Your task to perform on an android device: show emergency info Image 0: 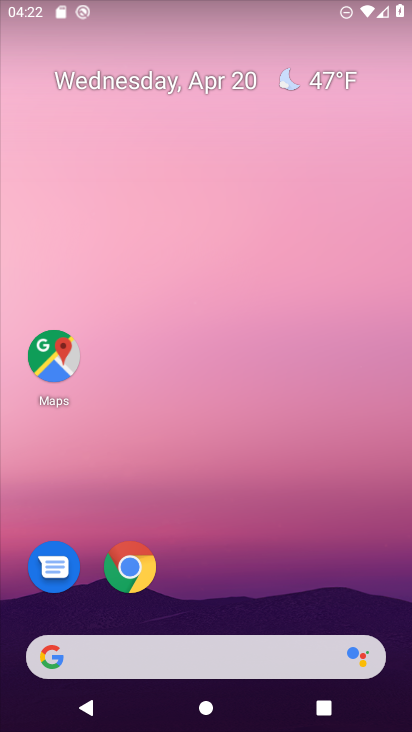
Step 0: drag from (266, 13) to (218, 531)
Your task to perform on an android device: show emergency info Image 1: 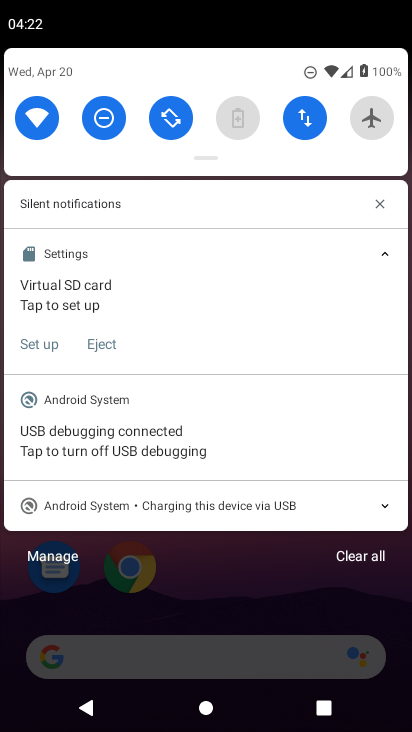
Step 1: drag from (210, 66) to (223, 574)
Your task to perform on an android device: show emergency info Image 2: 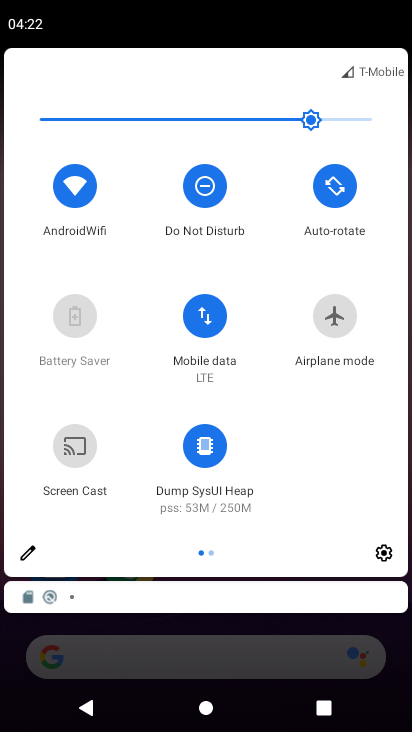
Step 2: click (383, 562)
Your task to perform on an android device: show emergency info Image 3: 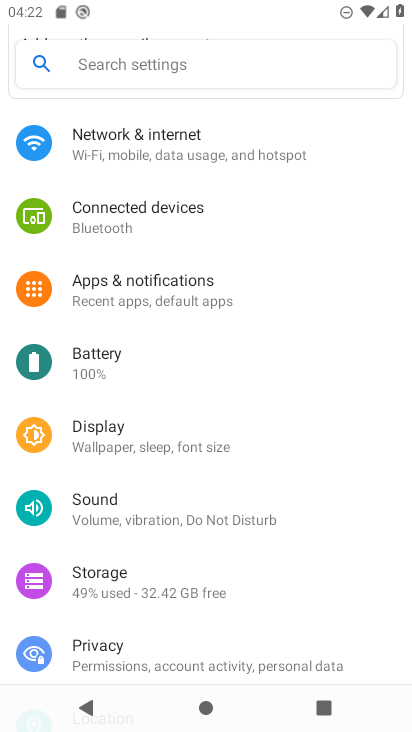
Step 3: drag from (69, 653) to (191, 212)
Your task to perform on an android device: show emergency info Image 4: 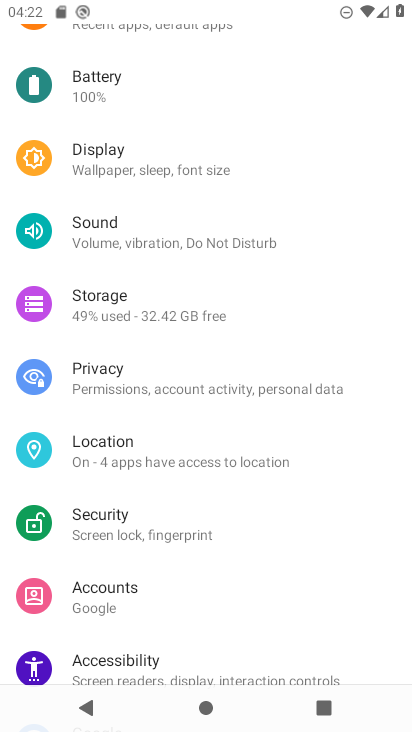
Step 4: drag from (130, 629) to (210, 159)
Your task to perform on an android device: show emergency info Image 5: 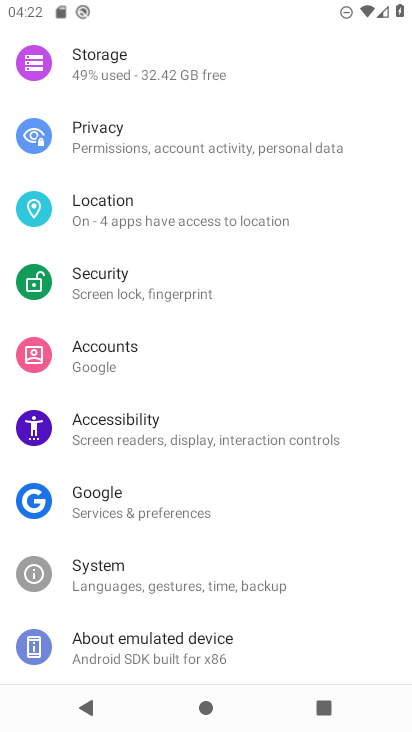
Step 5: click (186, 648)
Your task to perform on an android device: show emergency info Image 6: 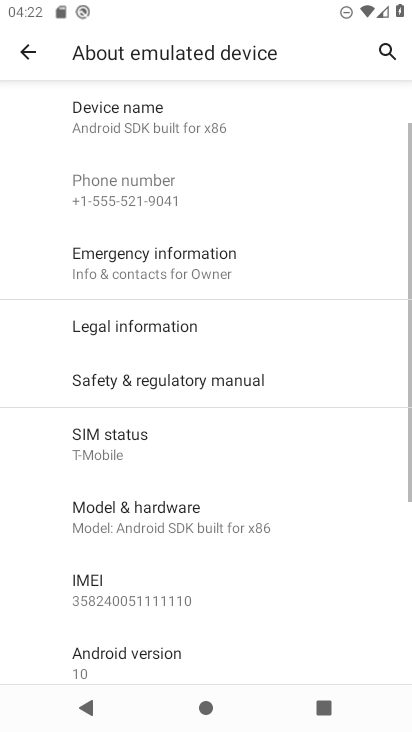
Step 6: click (257, 281)
Your task to perform on an android device: show emergency info Image 7: 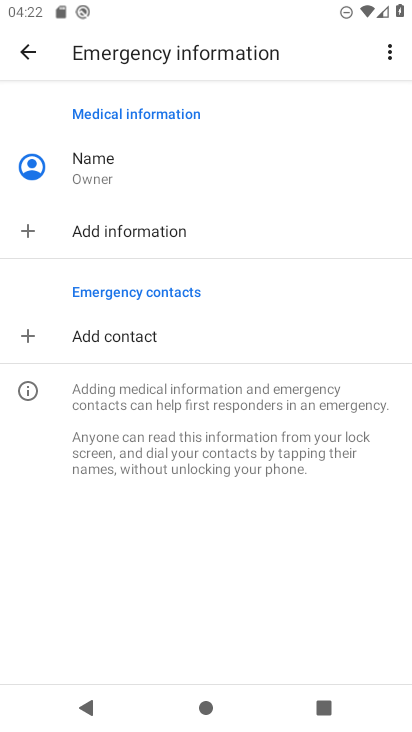
Step 7: task complete